Your task to perform on an android device: Search for vegetarian restaurants on Maps Image 0: 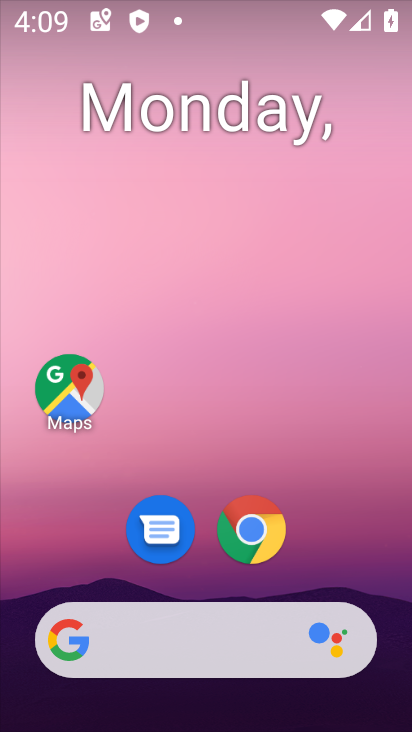
Step 0: drag from (230, 729) to (242, 150)
Your task to perform on an android device: Search for vegetarian restaurants on Maps Image 1: 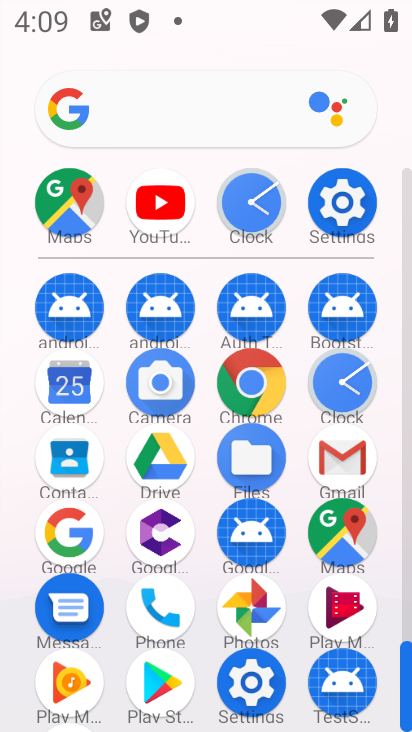
Step 1: click (342, 530)
Your task to perform on an android device: Search for vegetarian restaurants on Maps Image 2: 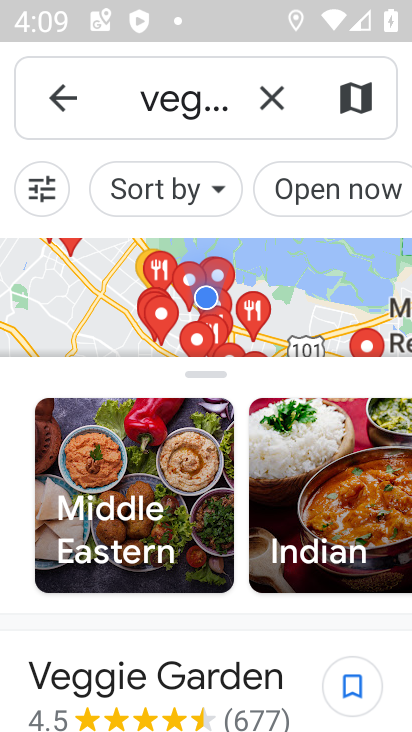
Step 2: click (192, 98)
Your task to perform on an android device: Search for vegetarian restaurants on Maps Image 3: 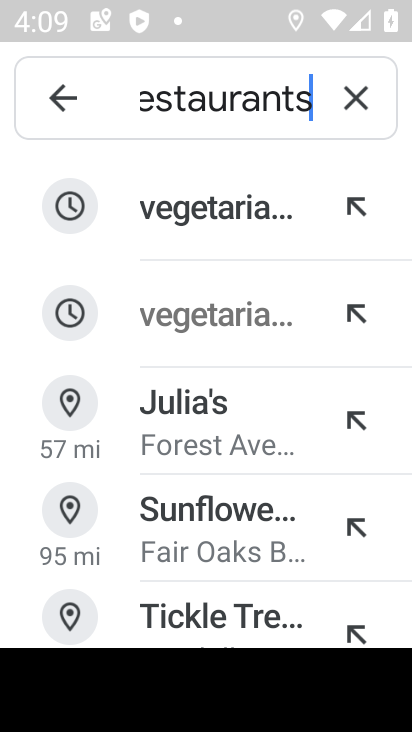
Step 3: task complete